Your task to perform on an android device: Go to sound settings Image 0: 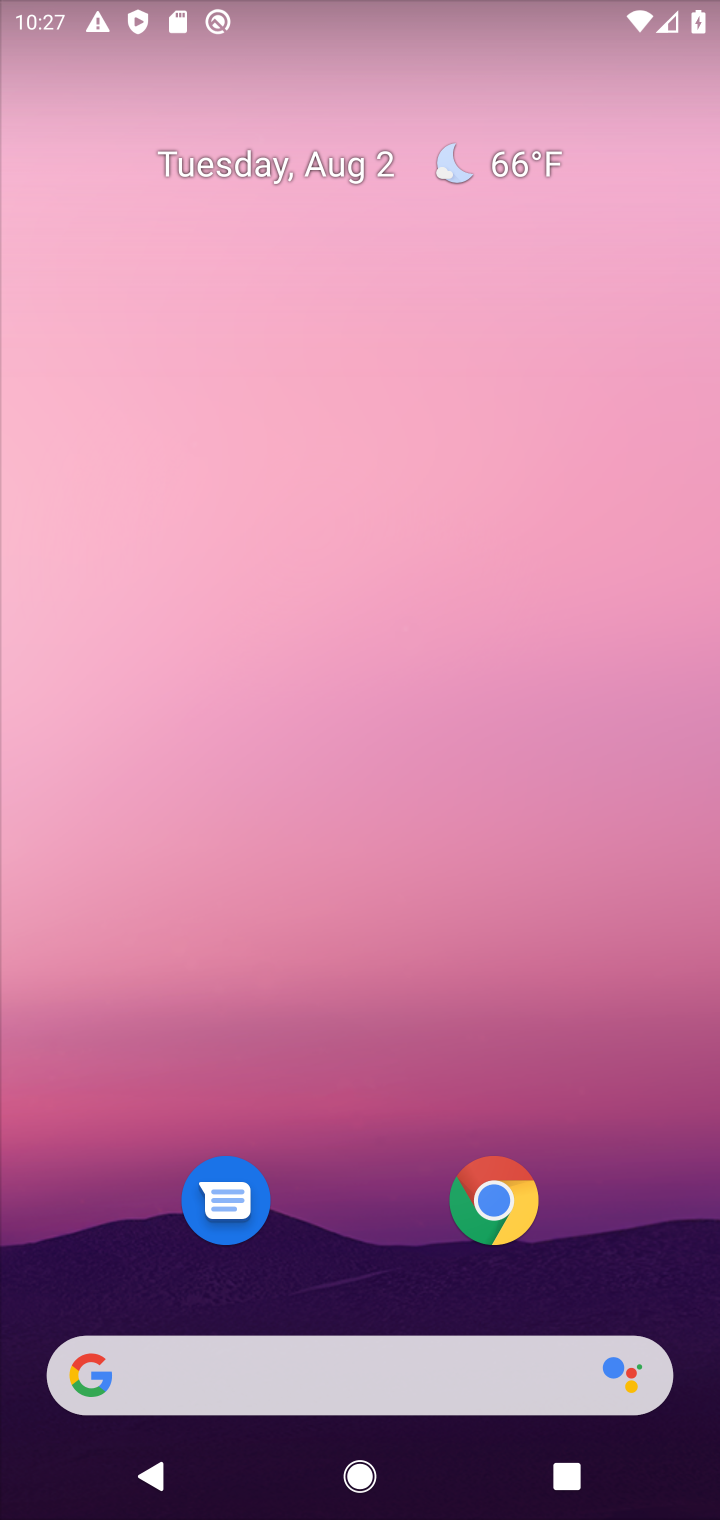
Step 0: drag from (631, 1263) to (596, 142)
Your task to perform on an android device: Go to sound settings Image 1: 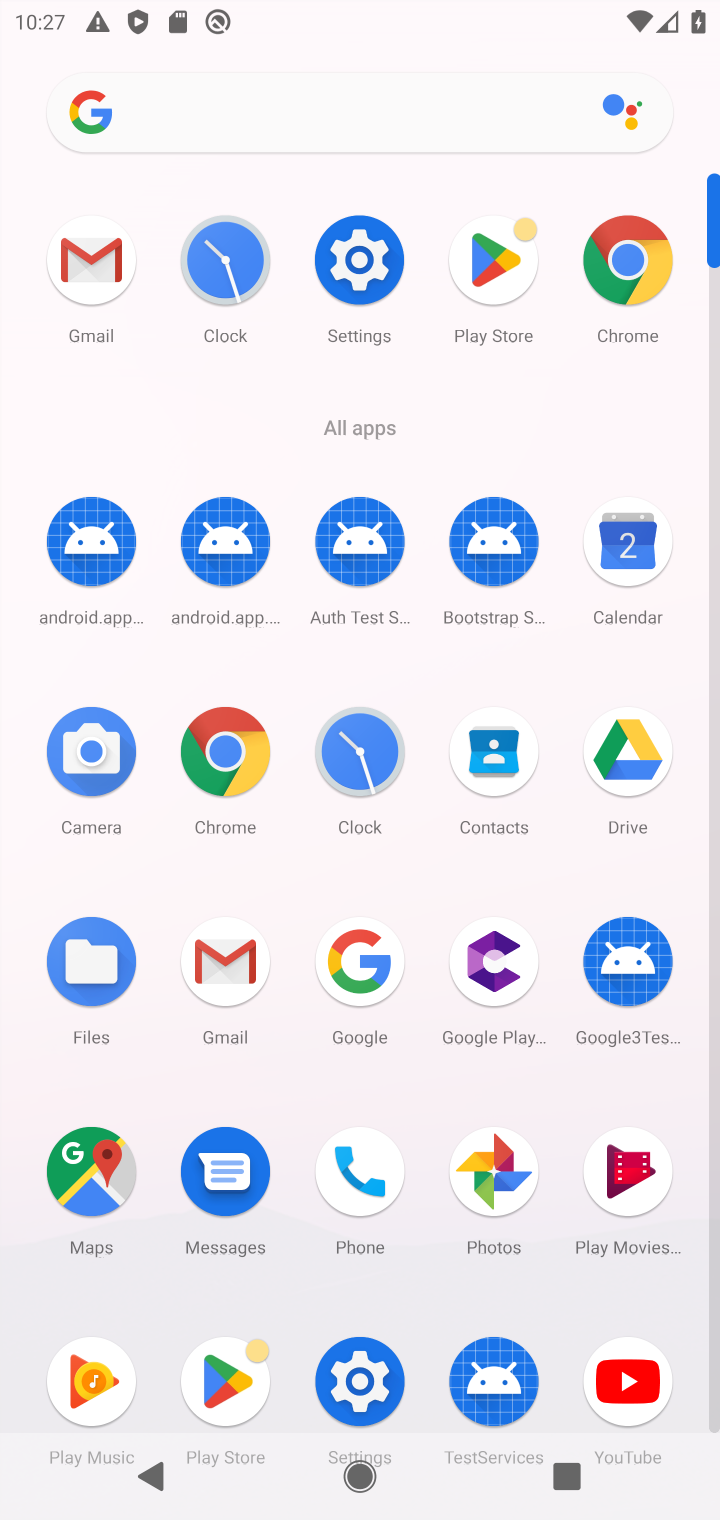
Step 1: click (357, 1369)
Your task to perform on an android device: Go to sound settings Image 2: 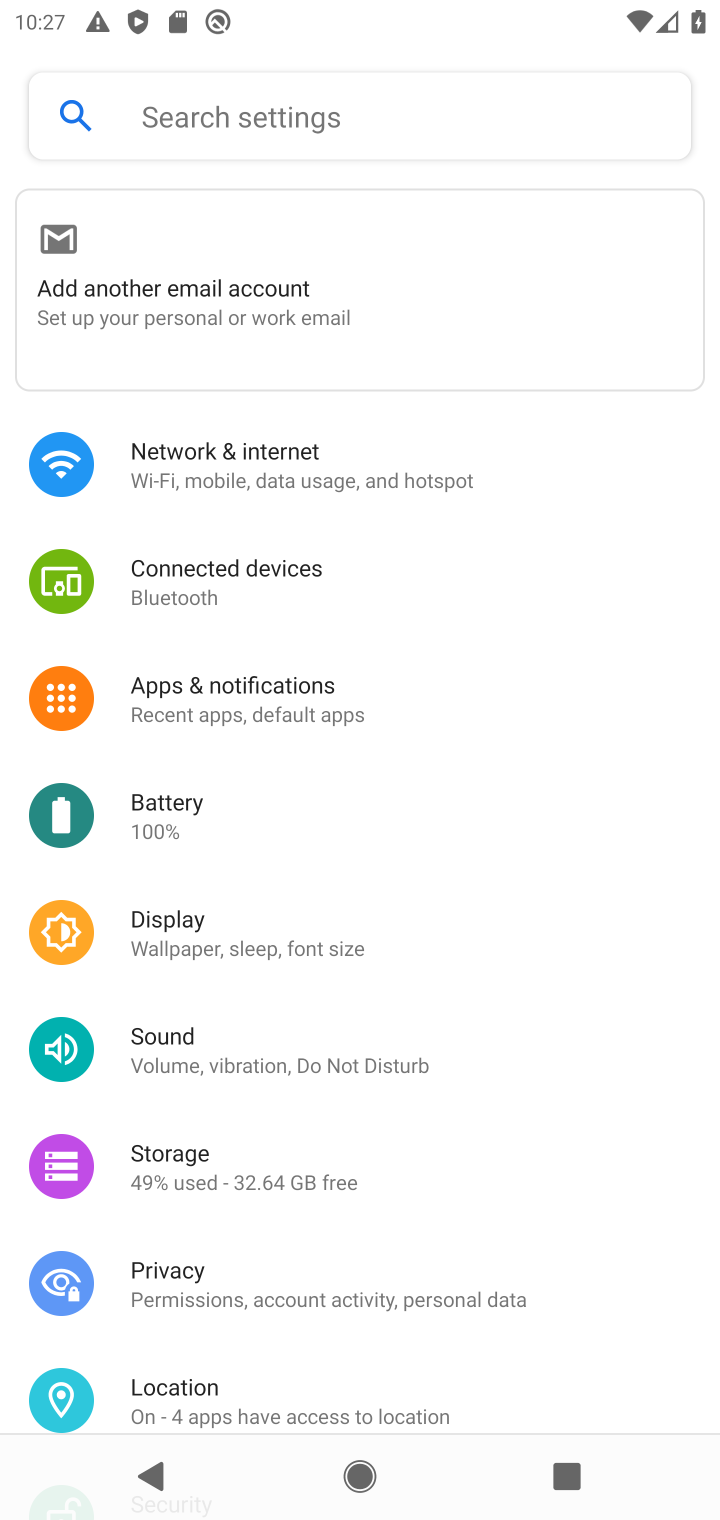
Step 2: click (179, 1043)
Your task to perform on an android device: Go to sound settings Image 3: 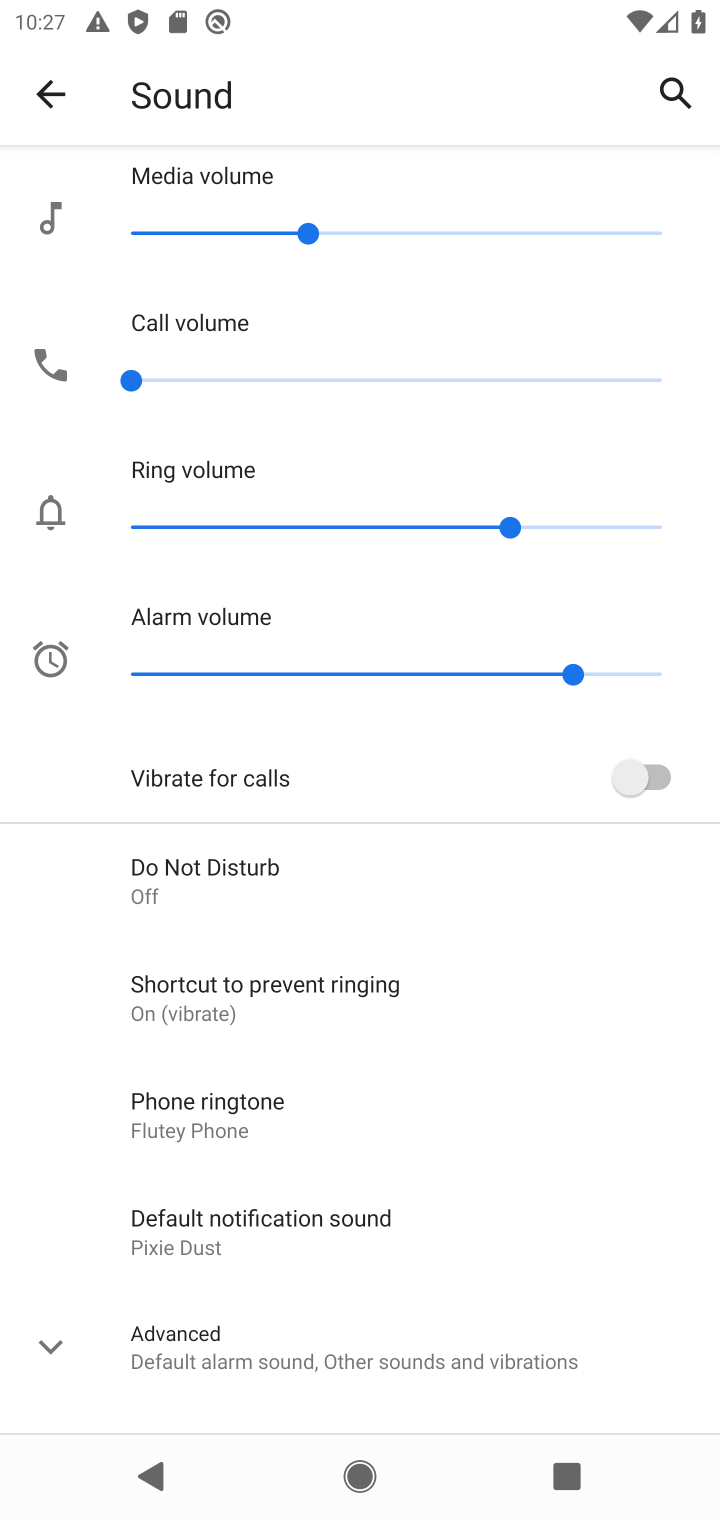
Step 3: task complete